Your task to perform on an android device: turn on translation in the chrome app Image 0: 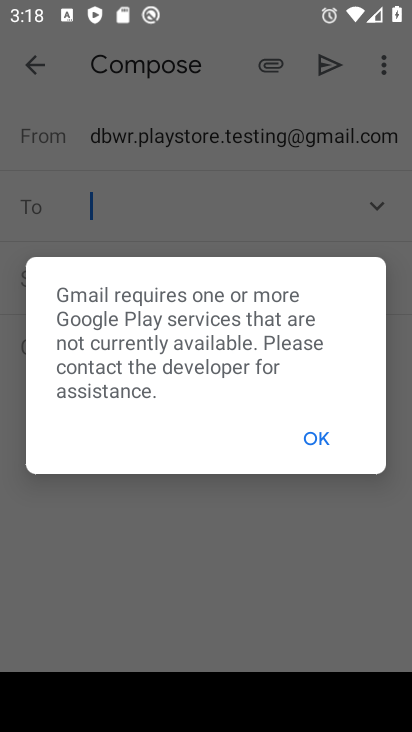
Step 0: press home button
Your task to perform on an android device: turn on translation in the chrome app Image 1: 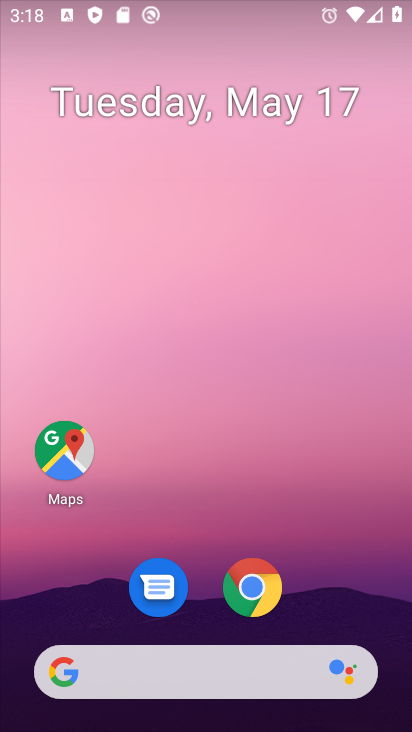
Step 1: drag from (239, 622) to (341, 80)
Your task to perform on an android device: turn on translation in the chrome app Image 2: 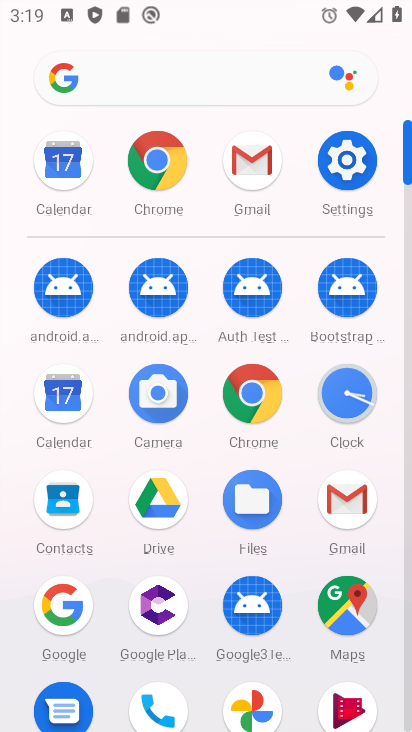
Step 2: click (252, 386)
Your task to perform on an android device: turn on translation in the chrome app Image 3: 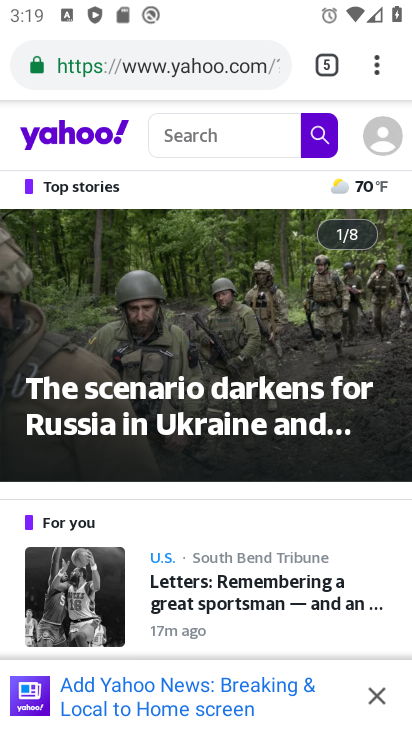
Step 3: drag from (238, 608) to (278, 409)
Your task to perform on an android device: turn on translation in the chrome app Image 4: 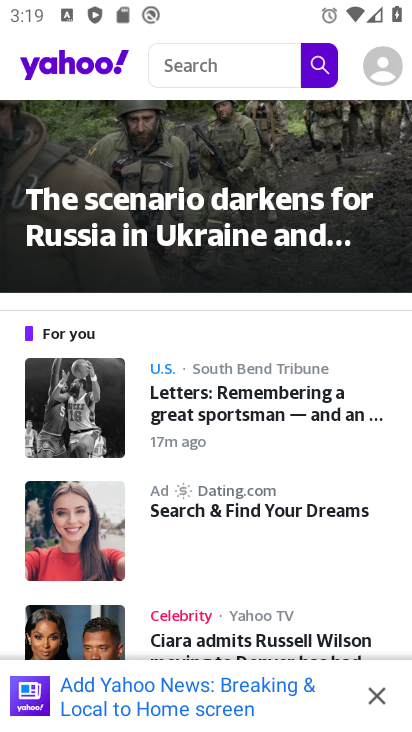
Step 4: drag from (346, 213) to (353, 620)
Your task to perform on an android device: turn on translation in the chrome app Image 5: 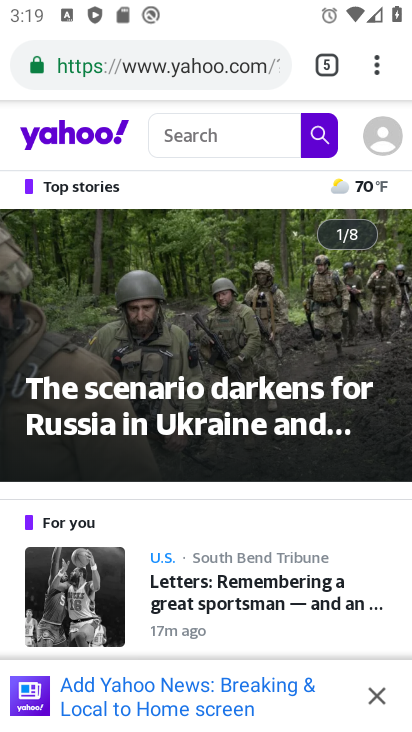
Step 5: click (379, 55)
Your task to perform on an android device: turn on translation in the chrome app Image 6: 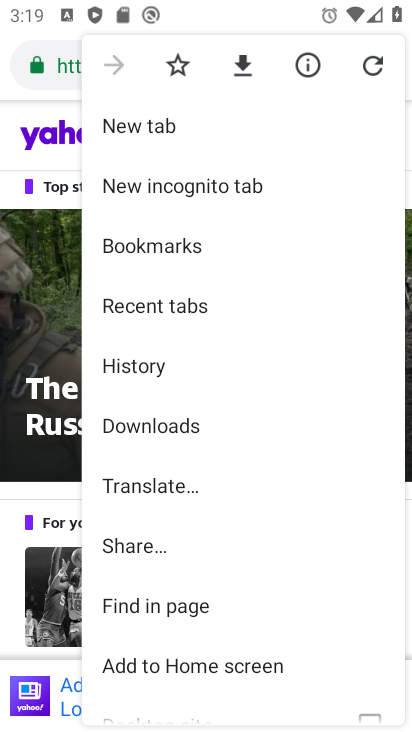
Step 6: drag from (261, 597) to (333, 120)
Your task to perform on an android device: turn on translation in the chrome app Image 7: 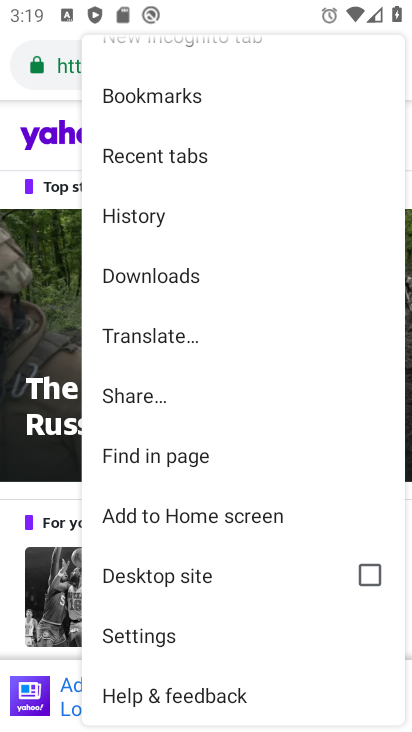
Step 7: click (175, 645)
Your task to perform on an android device: turn on translation in the chrome app Image 8: 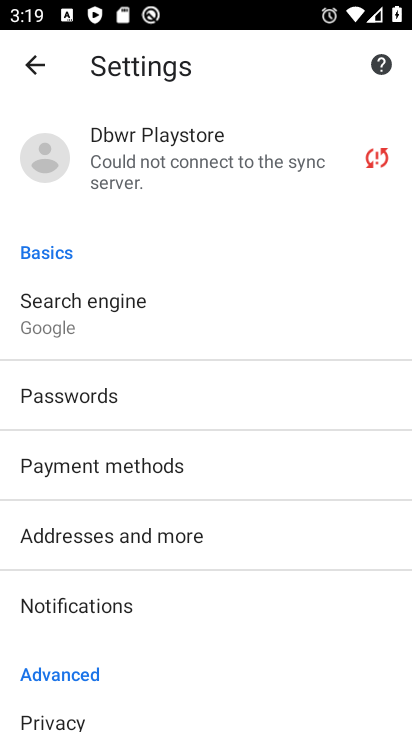
Step 8: drag from (177, 644) to (350, 112)
Your task to perform on an android device: turn on translation in the chrome app Image 9: 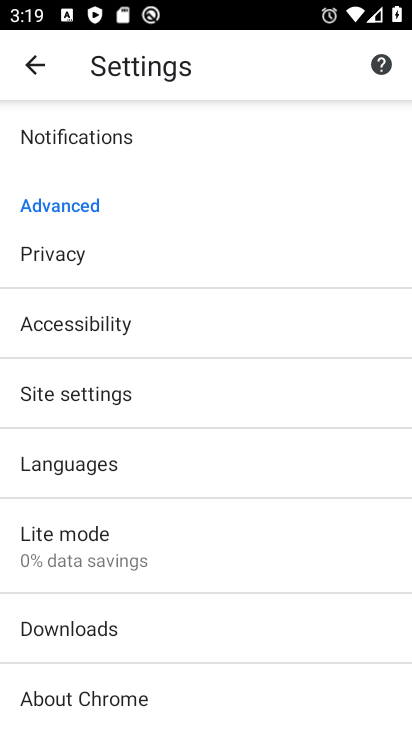
Step 9: drag from (154, 528) to (384, 75)
Your task to perform on an android device: turn on translation in the chrome app Image 10: 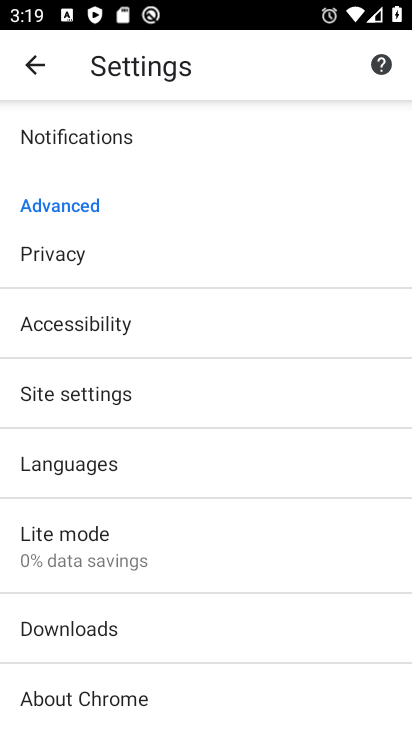
Step 10: click (136, 444)
Your task to perform on an android device: turn on translation in the chrome app Image 11: 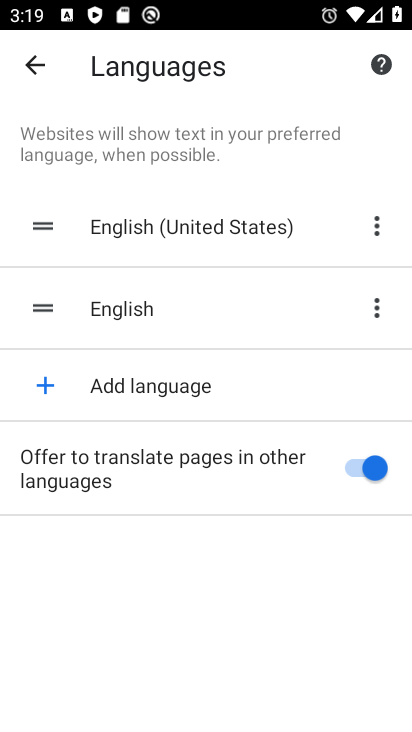
Step 11: task complete